Your task to perform on an android device: turn off improve location accuracy Image 0: 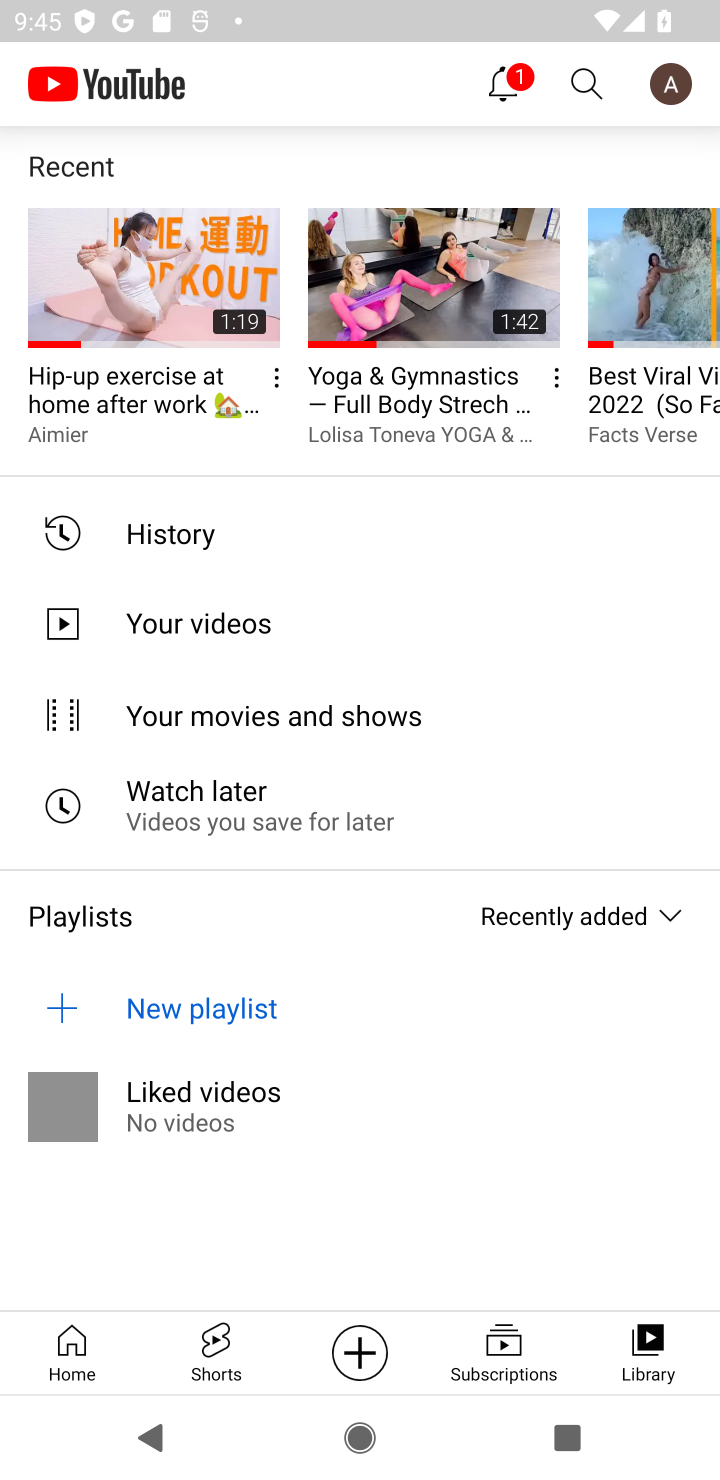
Step 0: press home button
Your task to perform on an android device: turn off improve location accuracy Image 1: 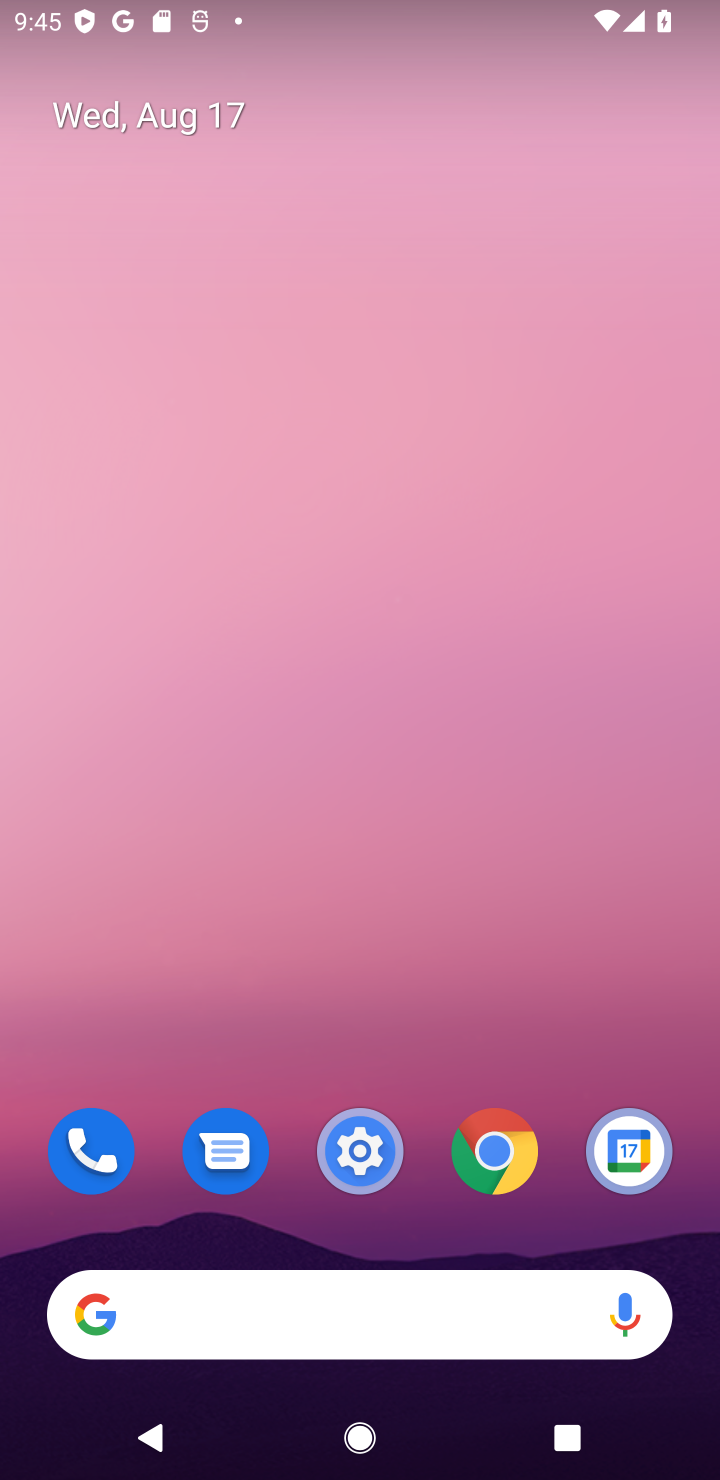
Step 1: click (377, 1168)
Your task to perform on an android device: turn off improve location accuracy Image 2: 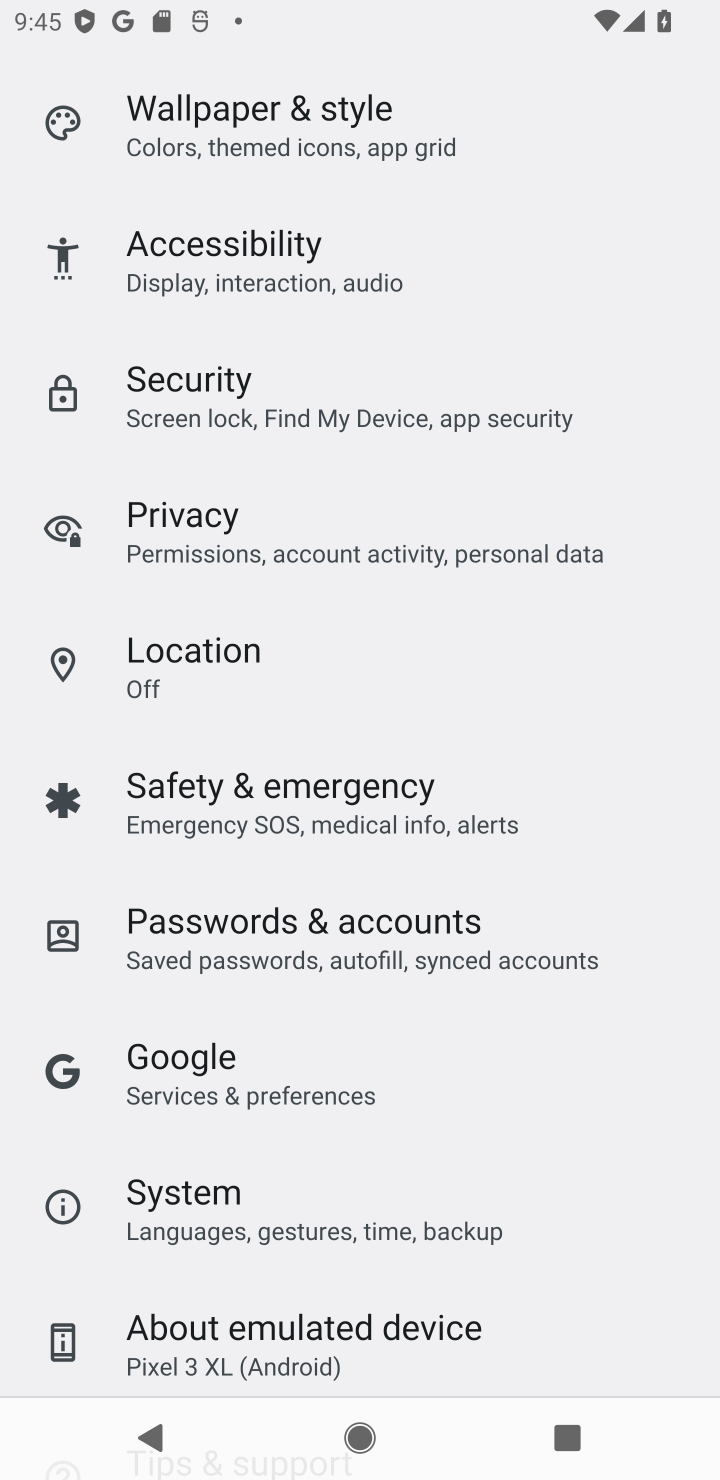
Step 2: drag from (409, 266) to (504, 909)
Your task to perform on an android device: turn off improve location accuracy Image 3: 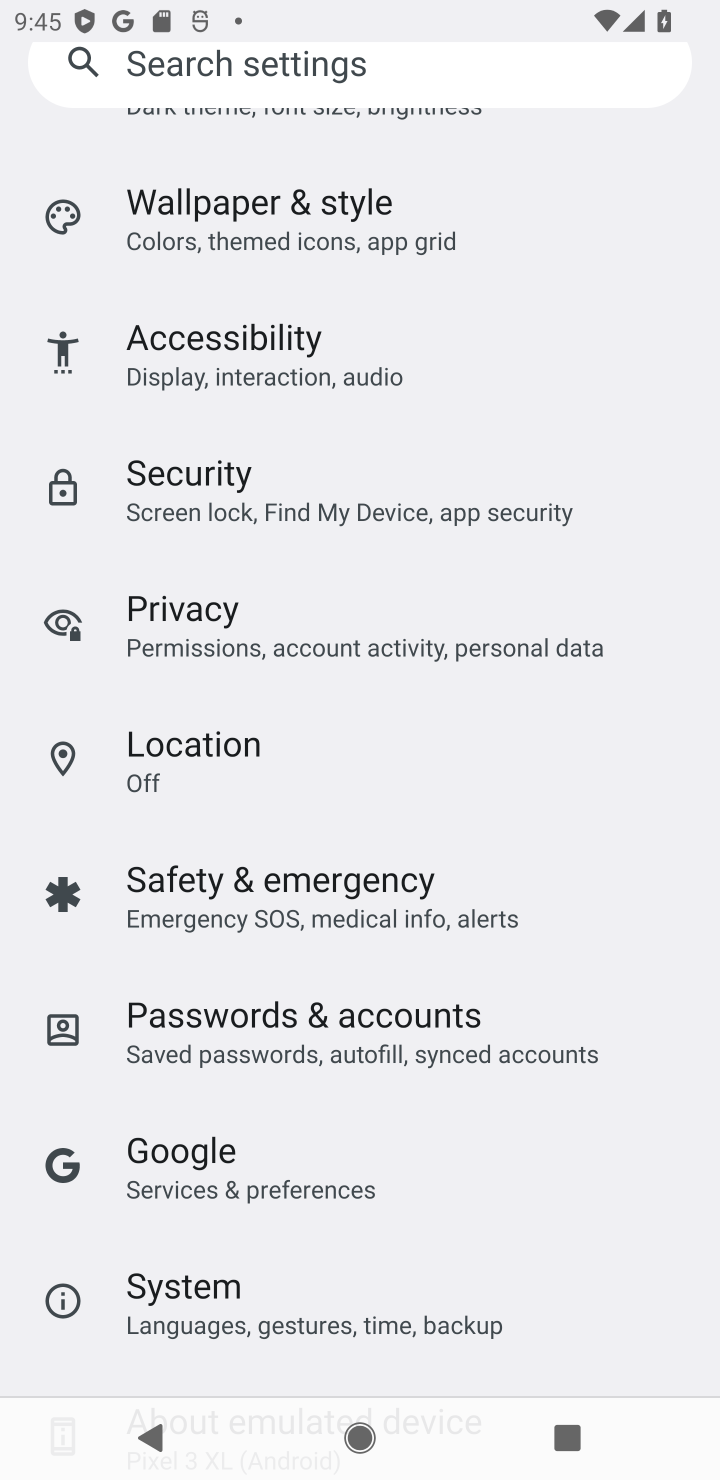
Step 3: click (318, 1423)
Your task to perform on an android device: turn off improve location accuracy Image 4: 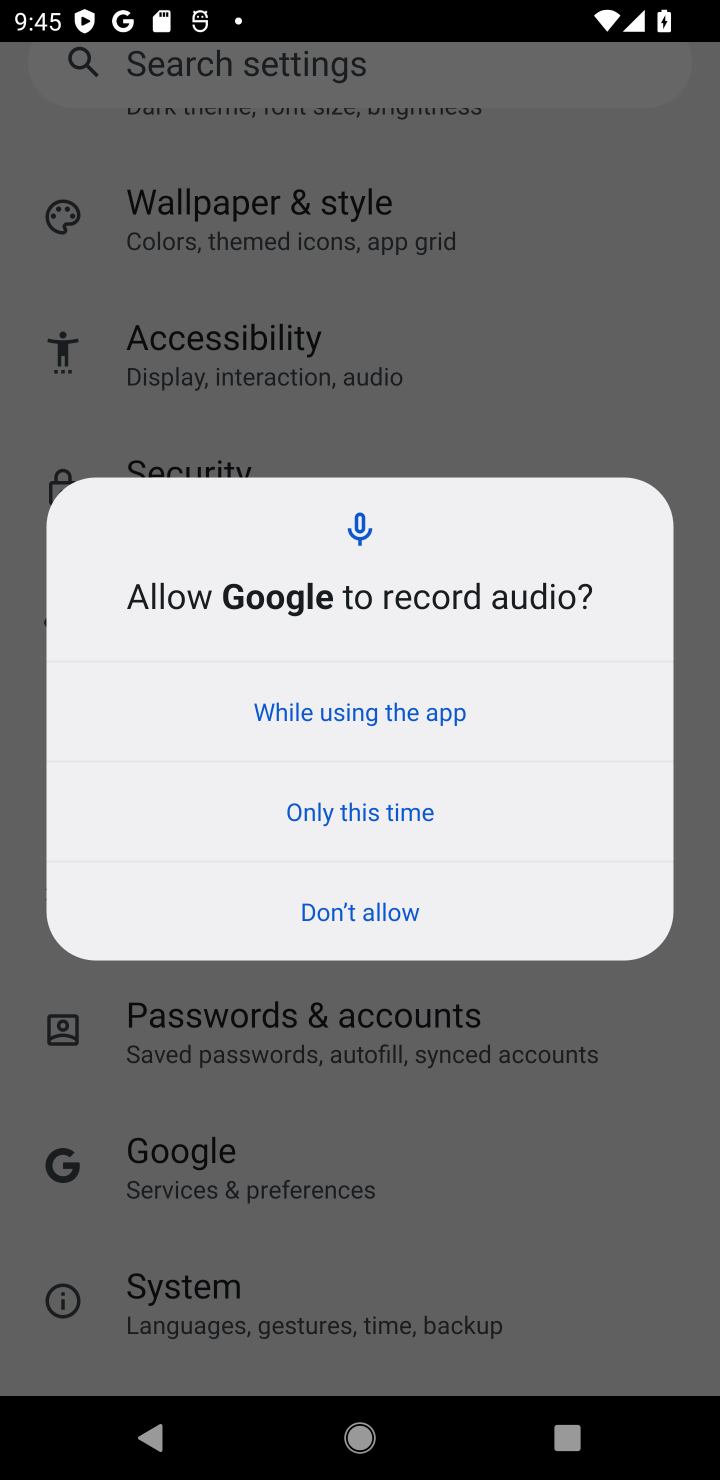
Step 4: press back button
Your task to perform on an android device: turn off improve location accuracy Image 5: 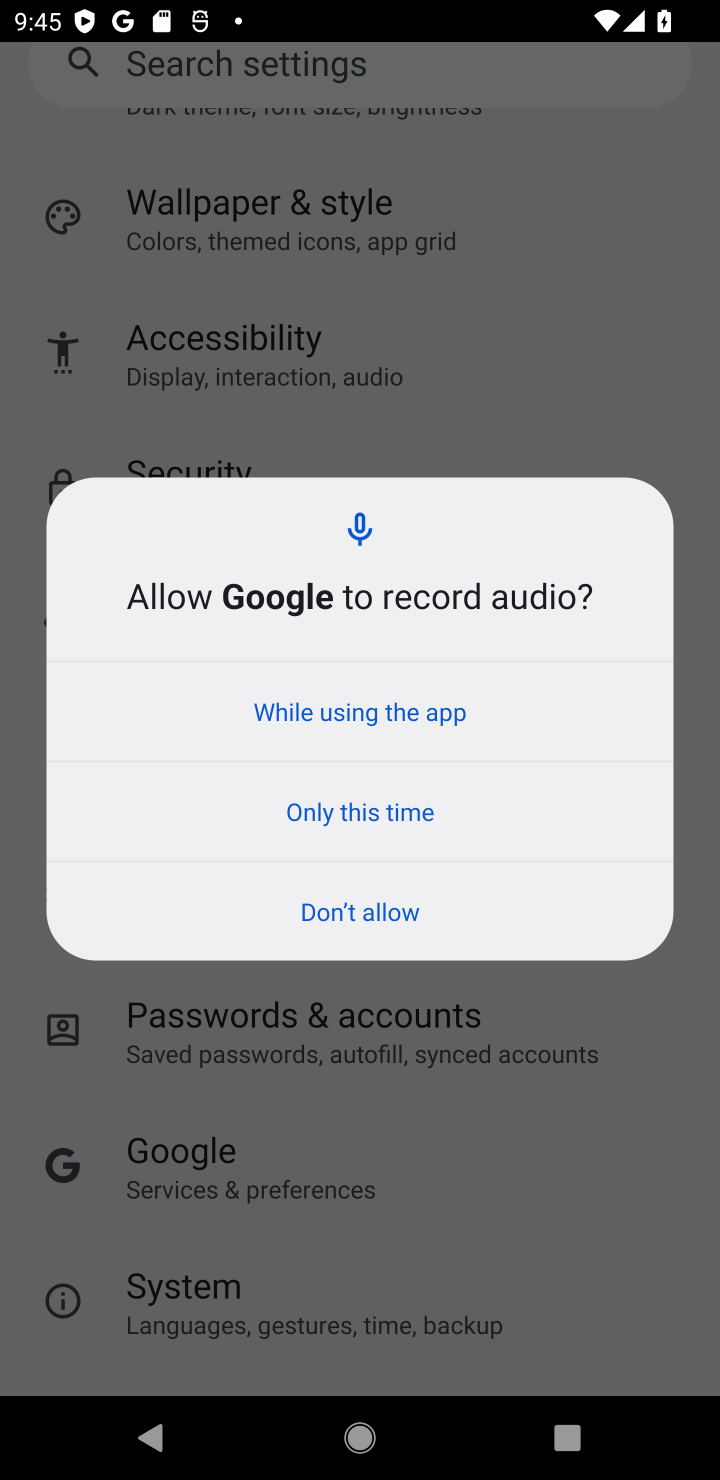
Step 5: click (318, 1423)
Your task to perform on an android device: turn off improve location accuracy Image 6: 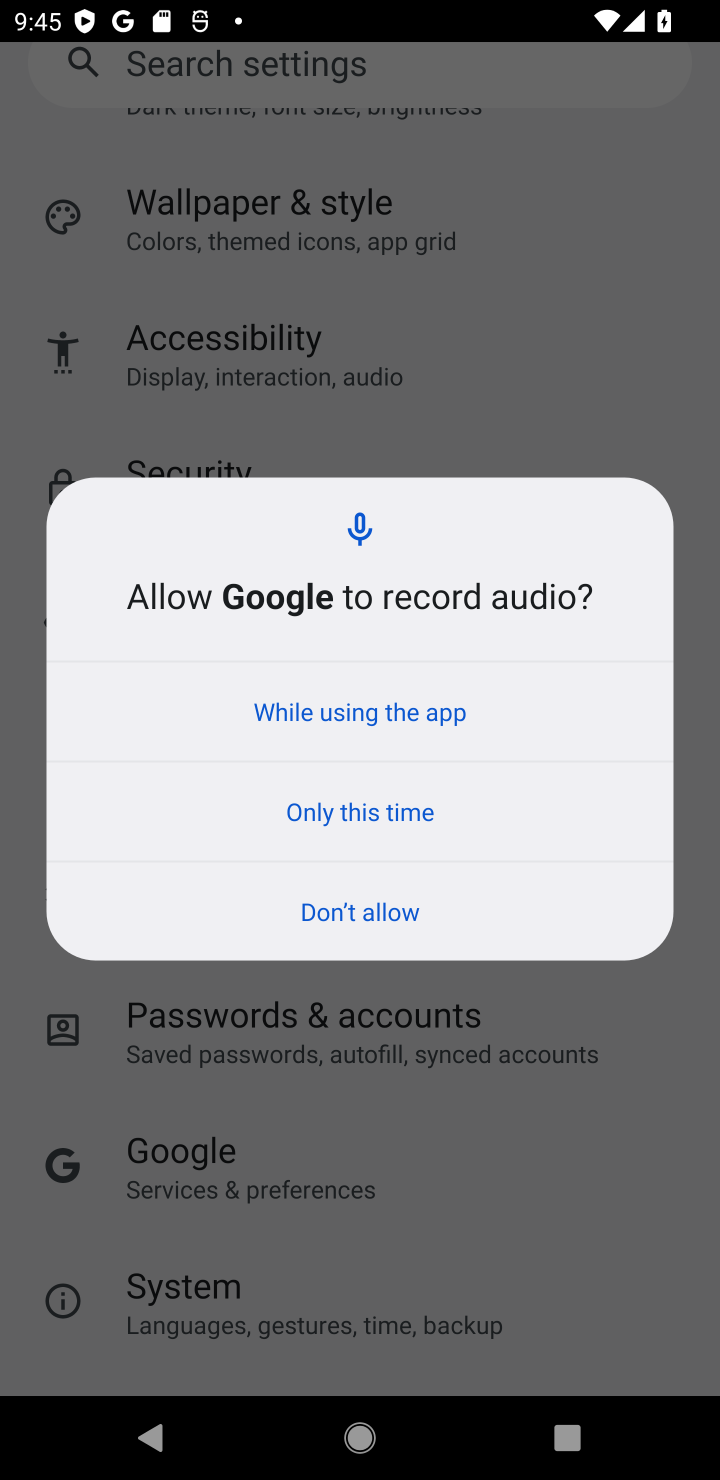
Step 6: press back button
Your task to perform on an android device: turn off improve location accuracy Image 7: 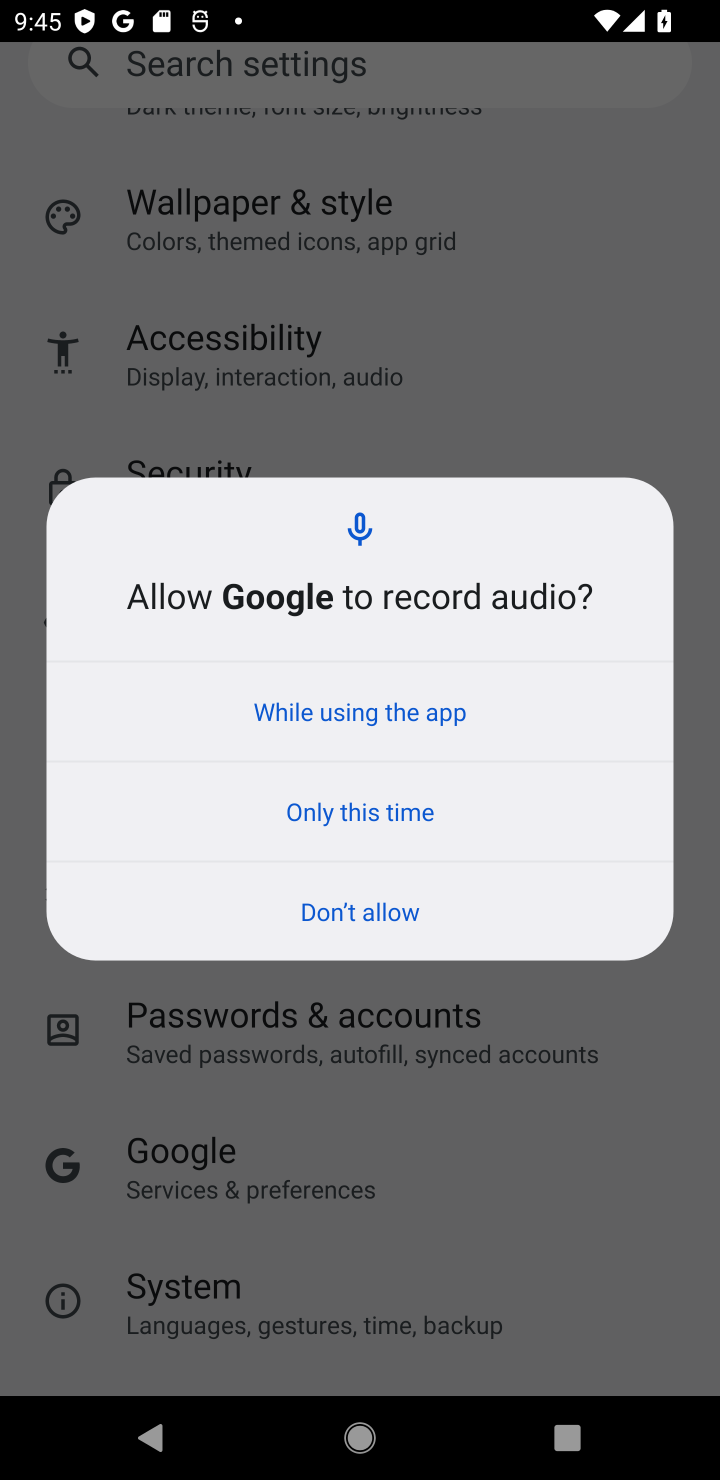
Step 7: click (318, 1423)
Your task to perform on an android device: turn off improve location accuracy Image 8: 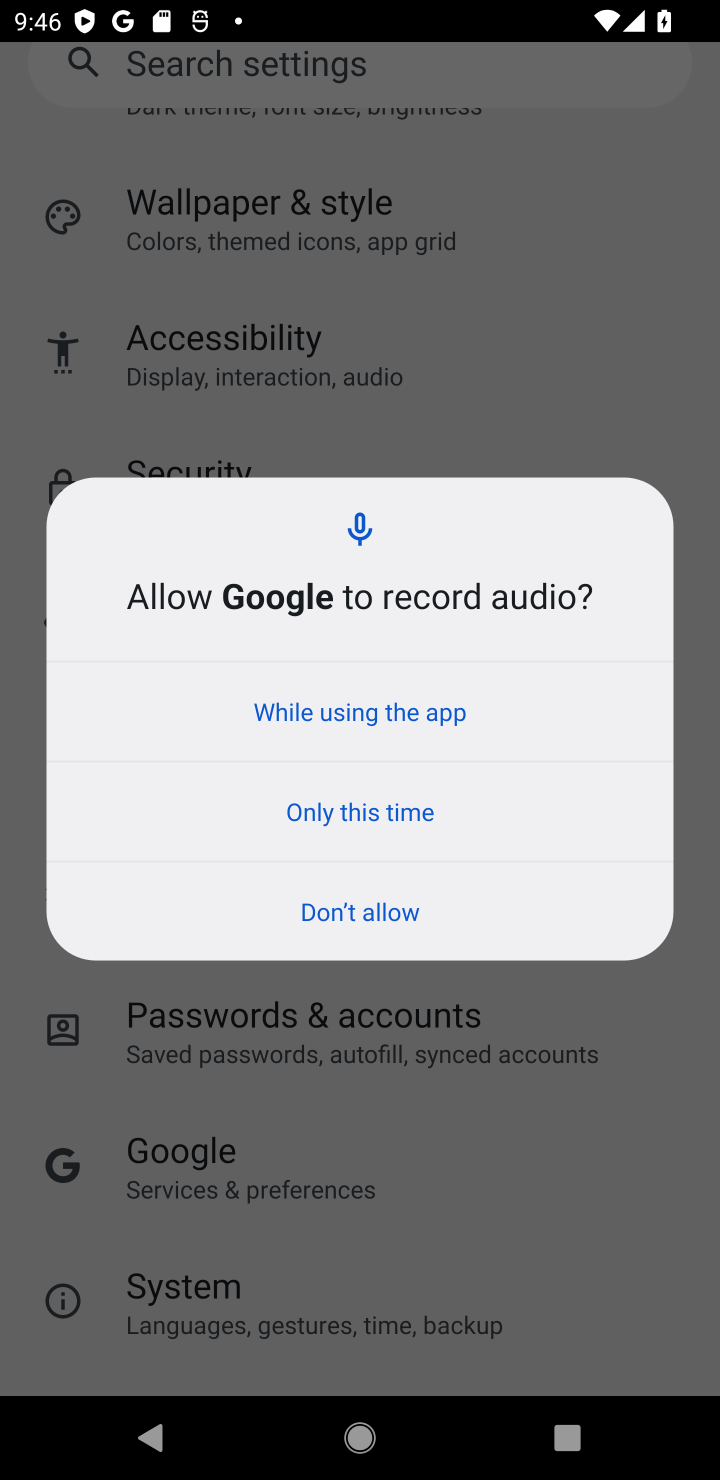
Step 8: press back button
Your task to perform on an android device: turn off improve location accuracy Image 9: 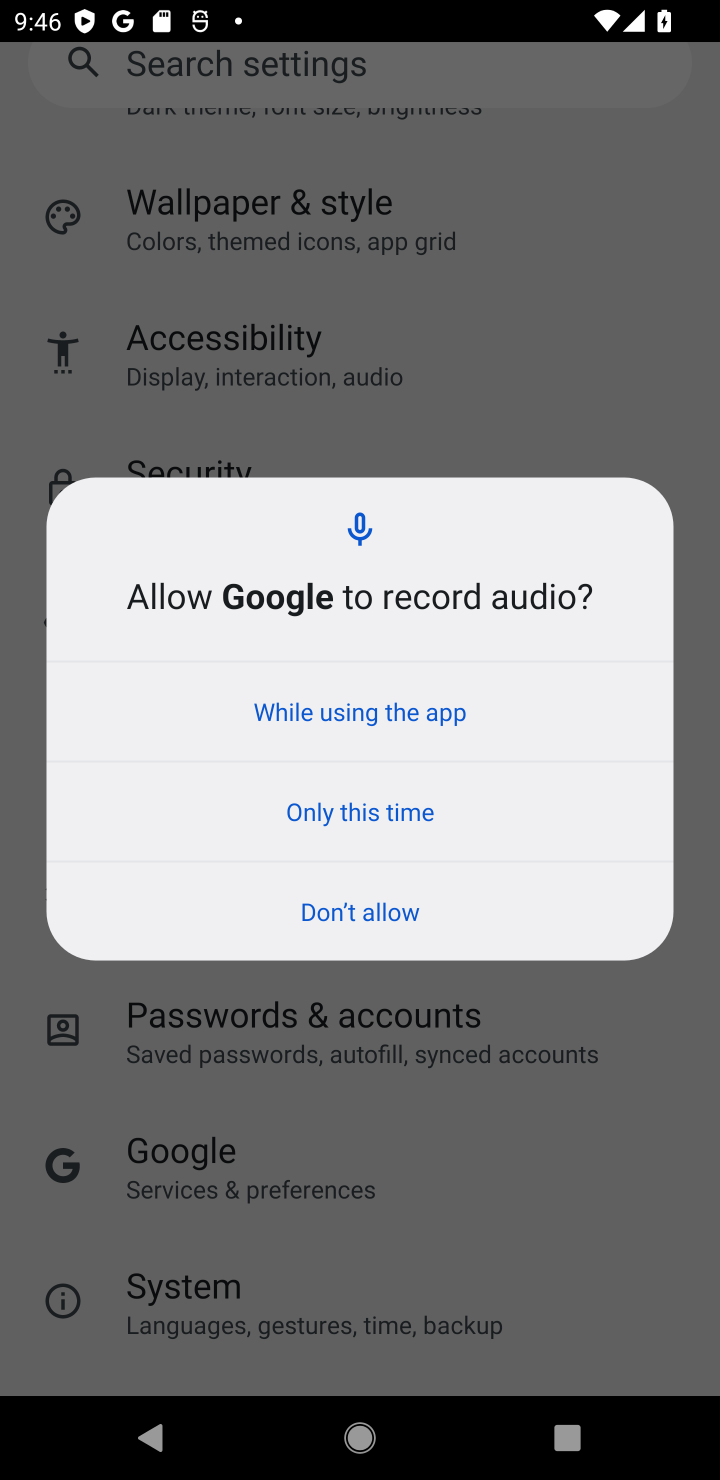
Step 9: drag from (318, 1423) to (596, 800)
Your task to perform on an android device: turn off improve location accuracy Image 10: 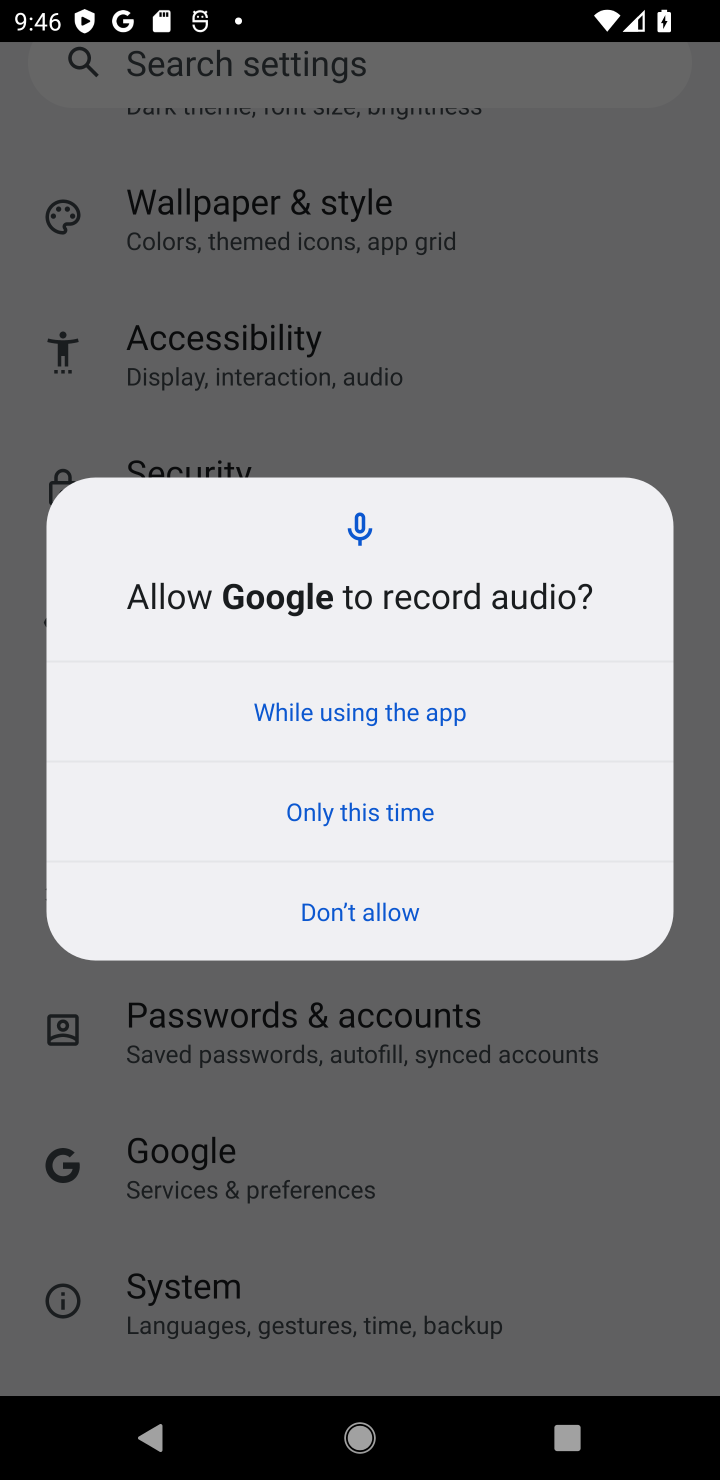
Step 10: click (352, 710)
Your task to perform on an android device: turn off improve location accuracy Image 11: 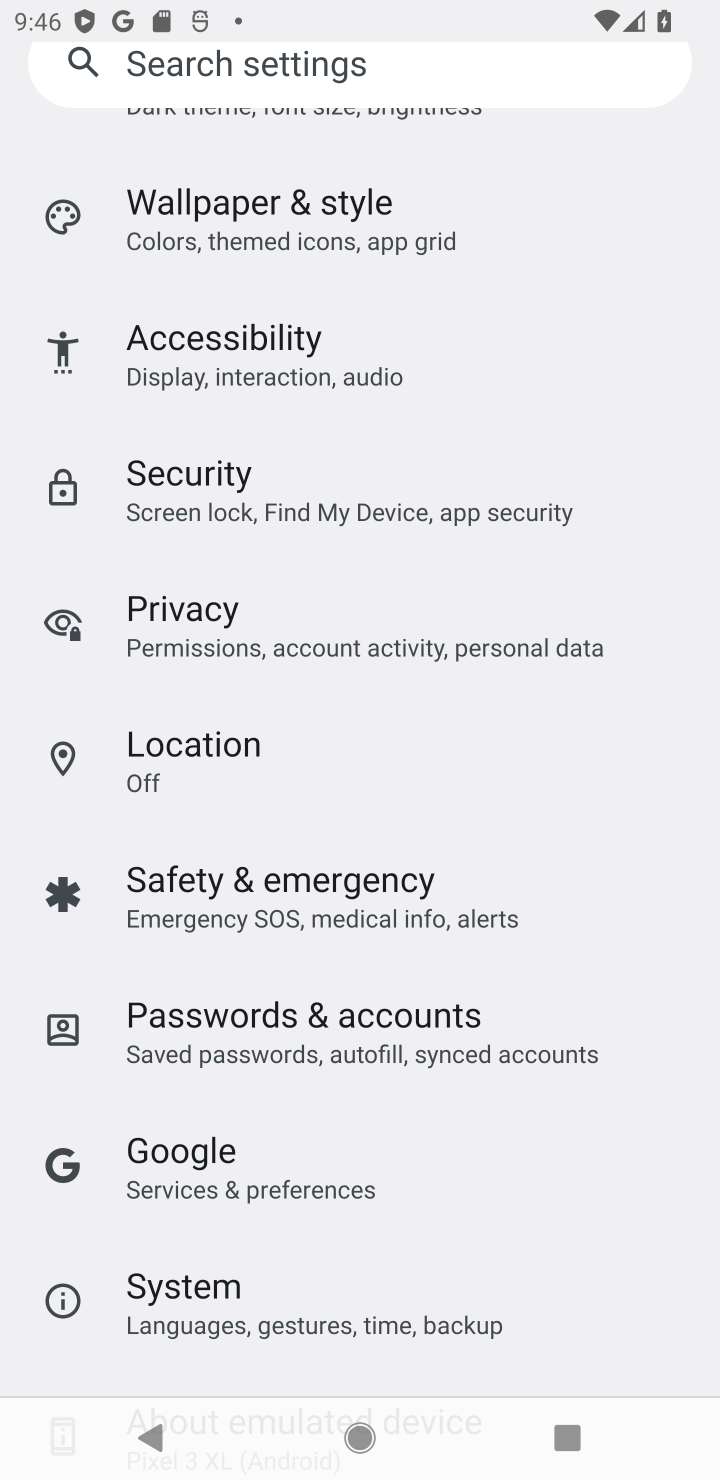
Step 11: click (279, 750)
Your task to perform on an android device: turn off improve location accuracy Image 12: 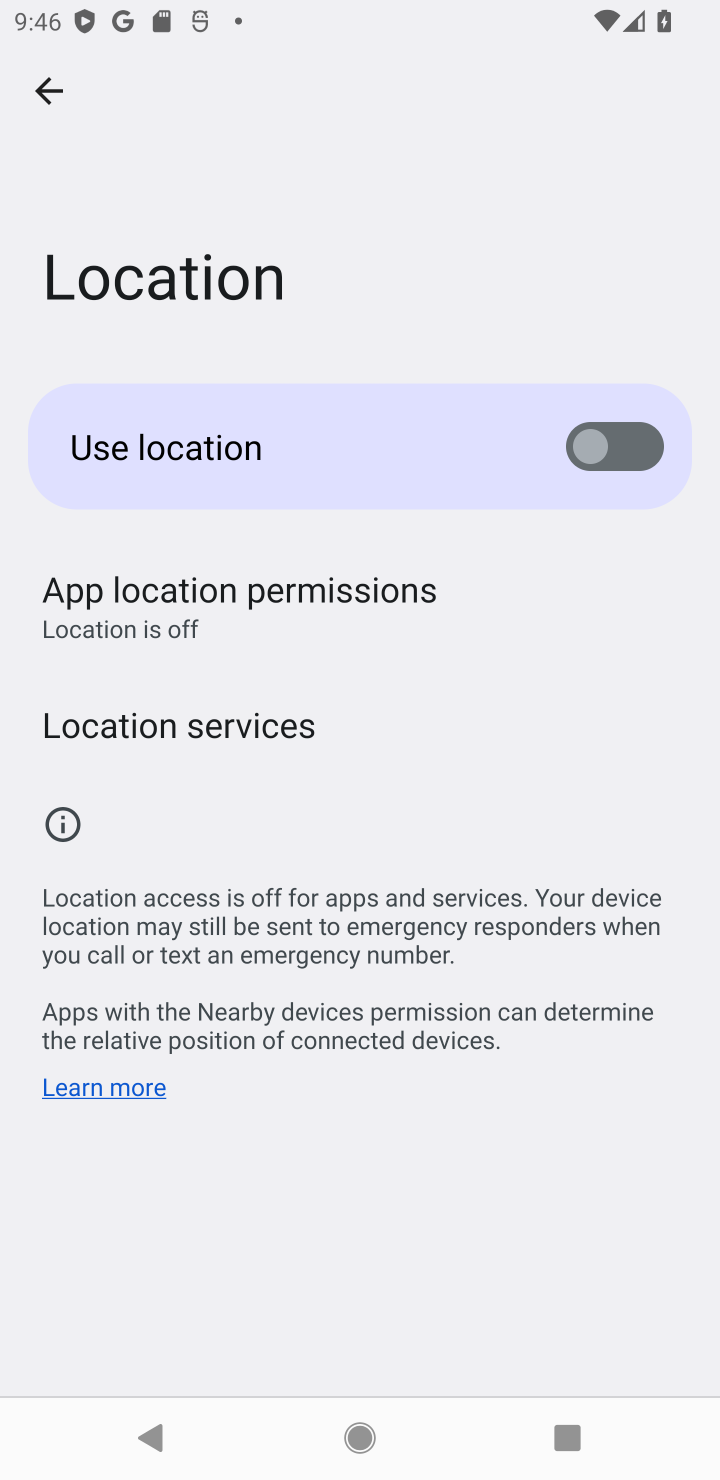
Step 12: click (279, 750)
Your task to perform on an android device: turn off improve location accuracy Image 13: 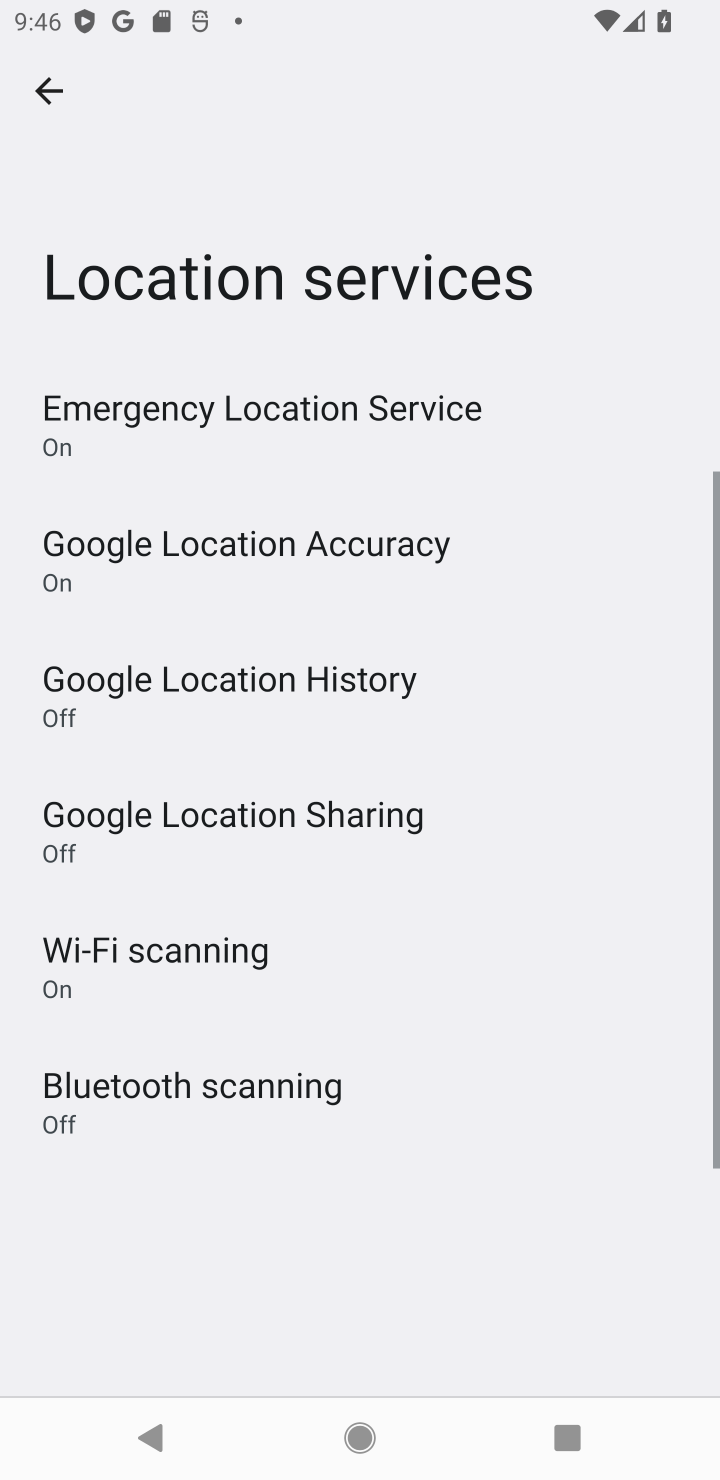
Step 13: click (318, 566)
Your task to perform on an android device: turn off improve location accuracy Image 14: 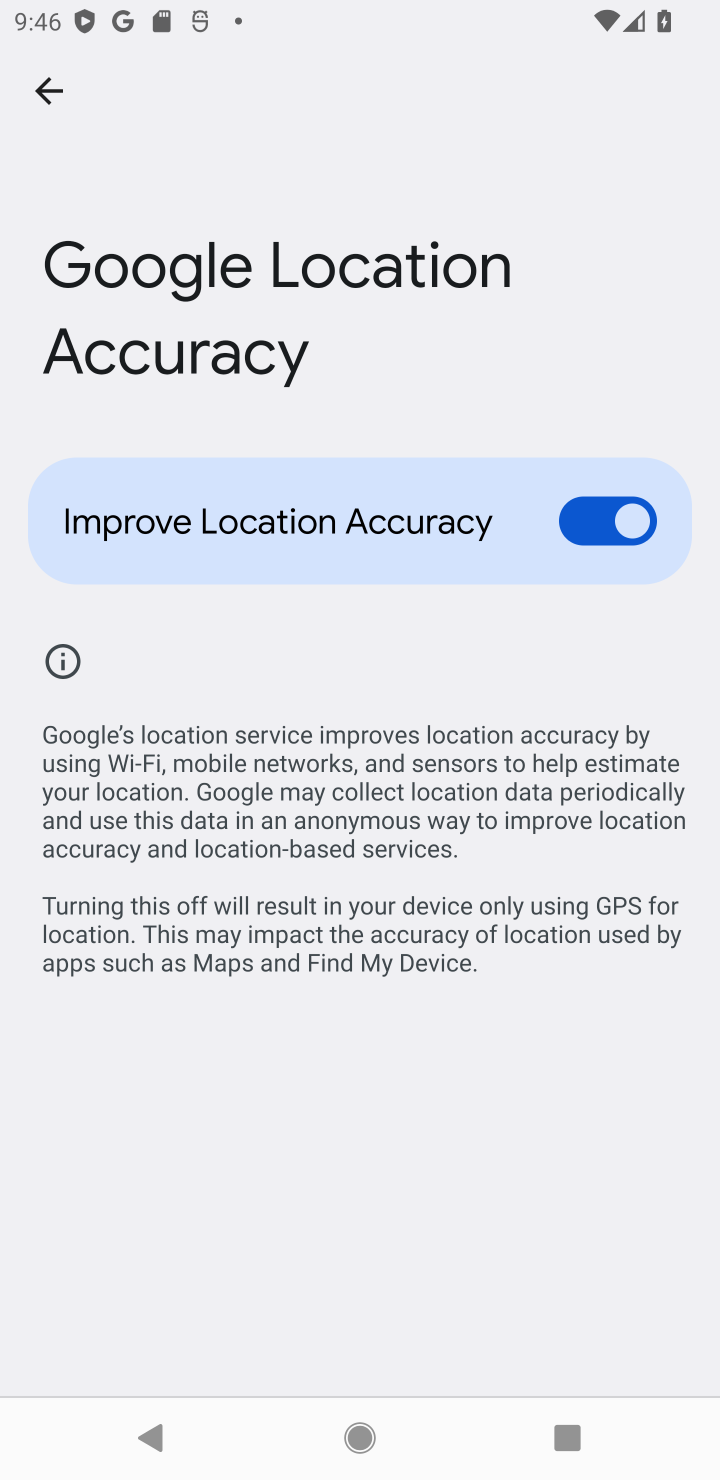
Step 14: click (587, 507)
Your task to perform on an android device: turn off improve location accuracy Image 15: 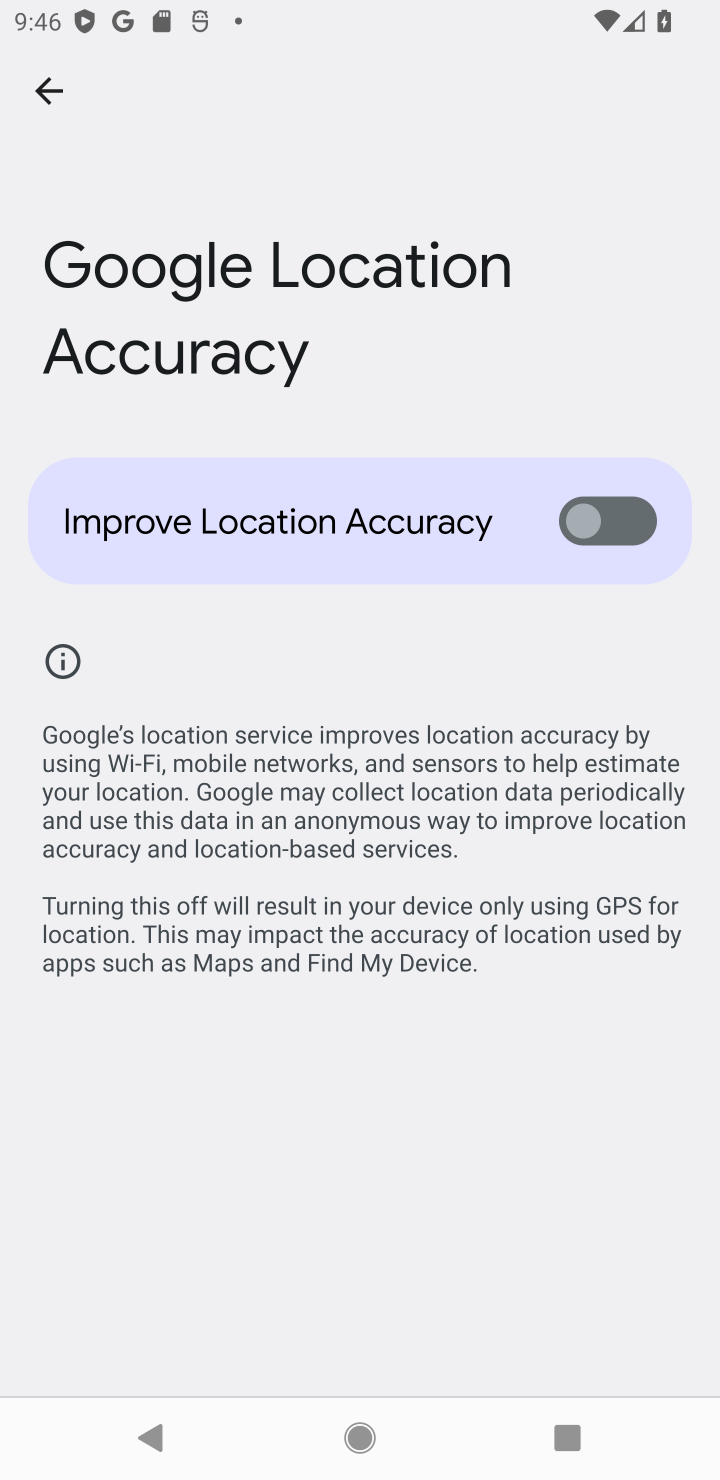
Step 15: task complete